Your task to perform on an android device: allow notifications from all sites in the chrome app Image 0: 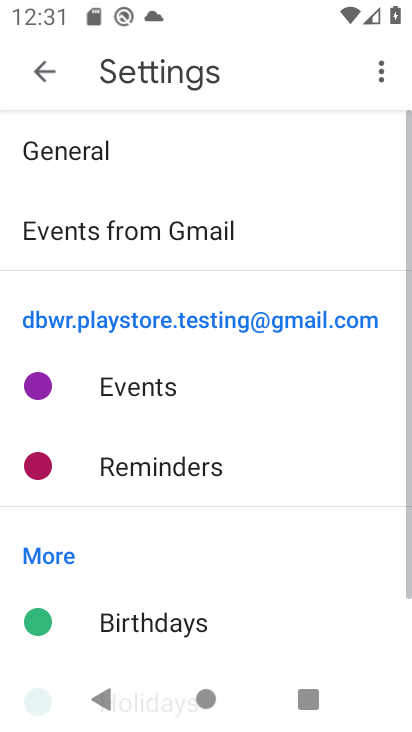
Step 0: drag from (206, 621) to (157, 189)
Your task to perform on an android device: allow notifications from all sites in the chrome app Image 1: 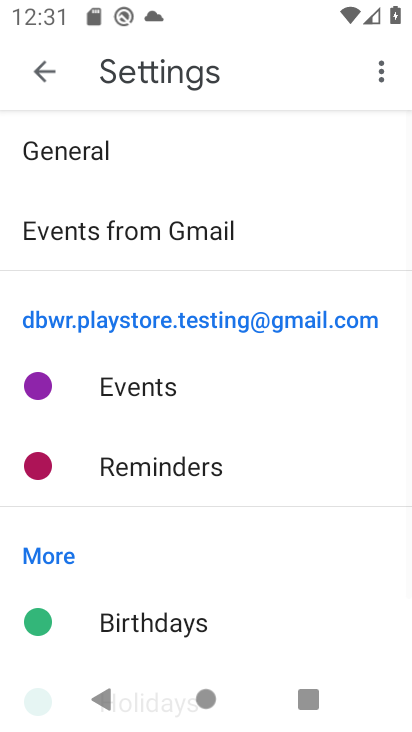
Step 1: click (35, 83)
Your task to perform on an android device: allow notifications from all sites in the chrome app Image 2: 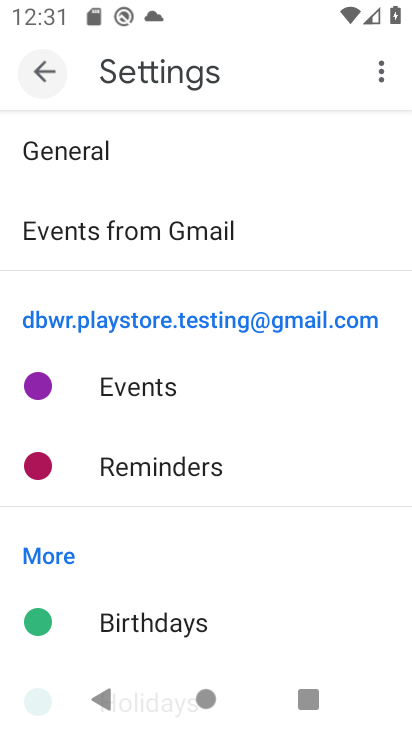
Step 2: click (39, 78)
Your task to perform on an android device: allow notifications from all sites in the chrome app Image 3: 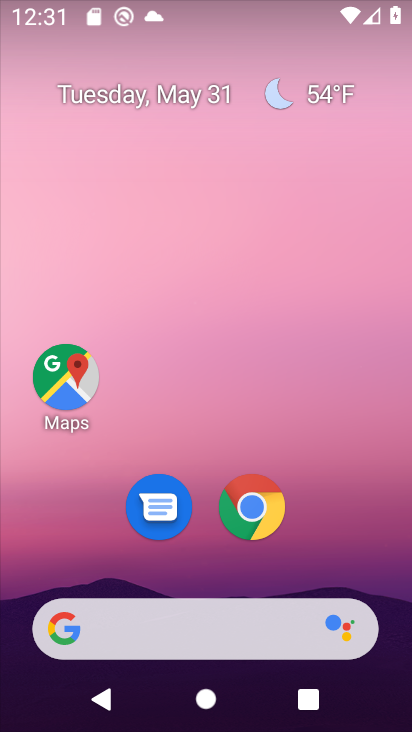
Step 3: drag from (262, 664) to (167, 254)
Your task to perform on an android device: allow notifications from all sites in the chrome app Image 4: 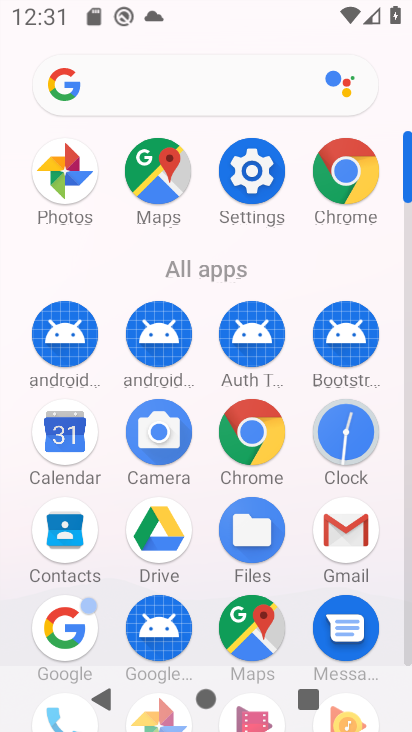
Step 4: click (269, 438)
Your task to perform on an android device: allow notifications from all sites in the chrome app Image 5: 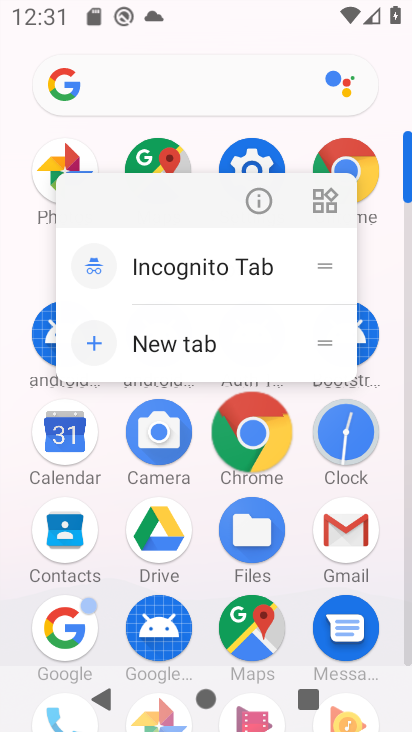
Step 5: click (272, 438)
Your task to perform on an android device: allow notifications from all sites in the chrome app Image 6: 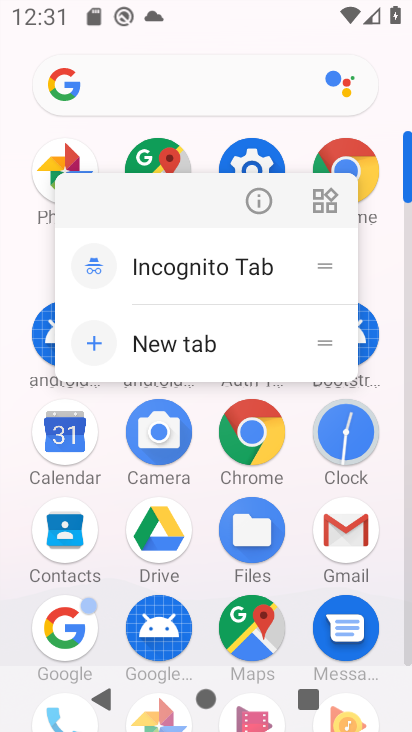
Step 6: click (253, 430)
Your task to perform on an android device: allow notifications from all sites in the chrome app Image 7: 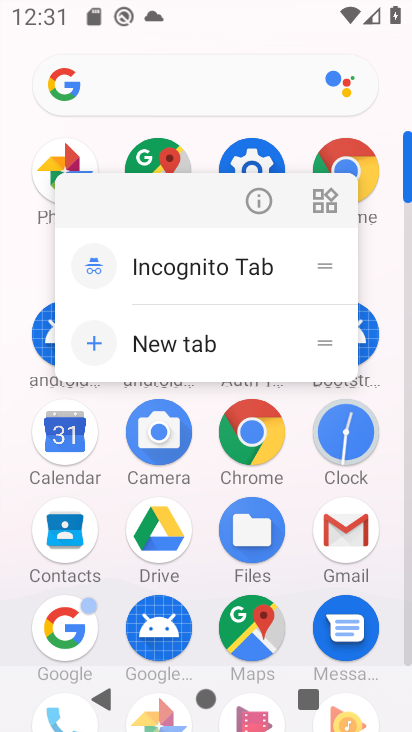
Step 7: click (255, 429)
Your task to perform on an android device: allow notifications from all sites in the chrome app Image 8: 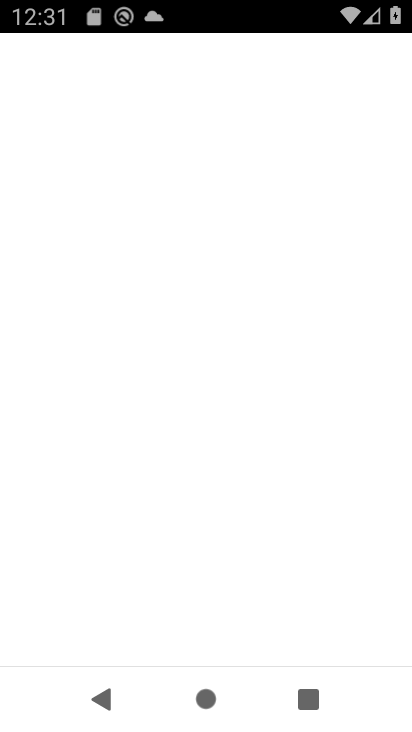
Step 8: click (259, 434)
Your task to perform on an android device: allow notifications from all sites in the chrome app Image 9: 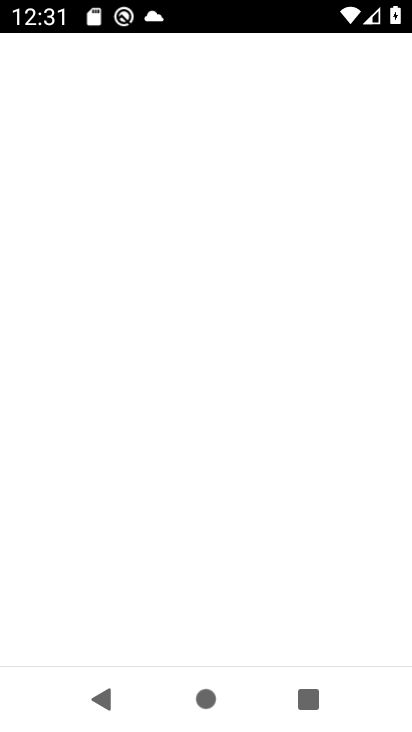
Step 9: click (261, 432)
Your task to perform on an android device: allow notifications from all sites in the chrome app Image 10: 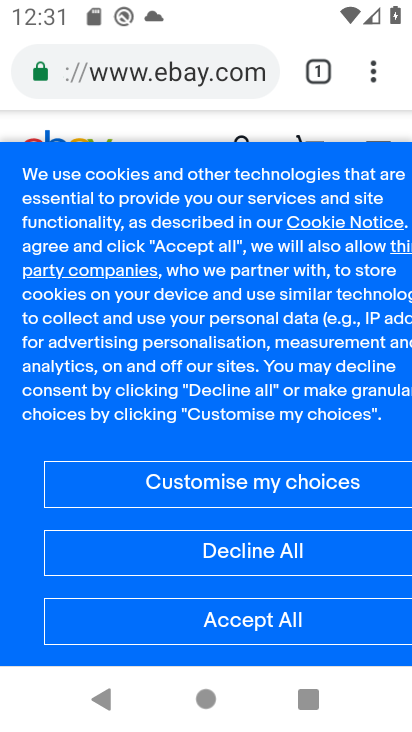
Step 10: drag from (377, 68) to (122, 495)
Your task to perform on an android device: allow notifications from all sites in the chrome app Image 11: 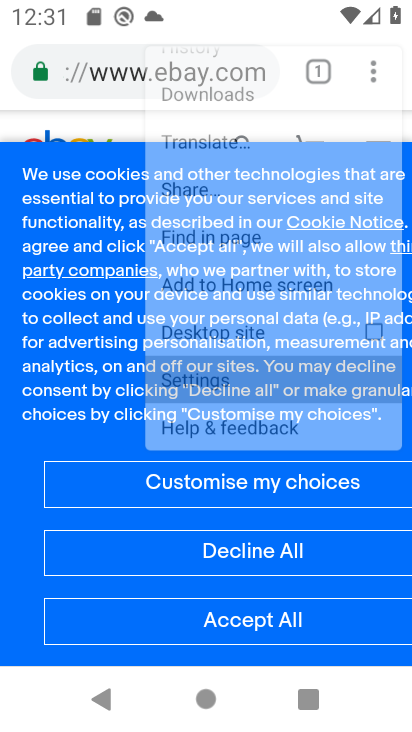
Step 11: click (125, 494)
Your task to perform on an android device: allow notifications from all sites in the chrome app Image 12: 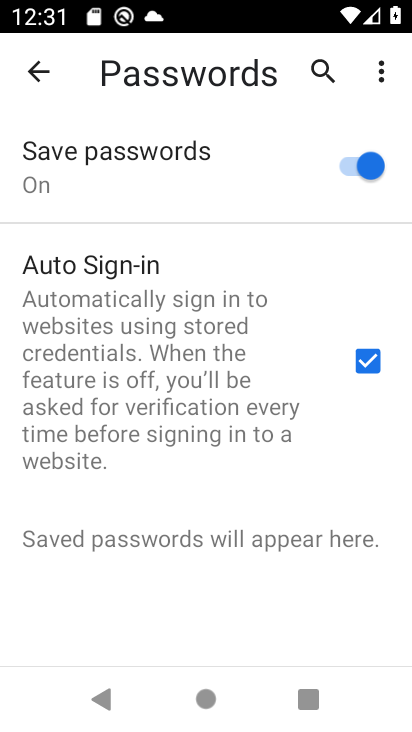
Step 12: click (26, 62)
Your task to perform on an android device: allow notifications from all sites in the chrome app Image 13: 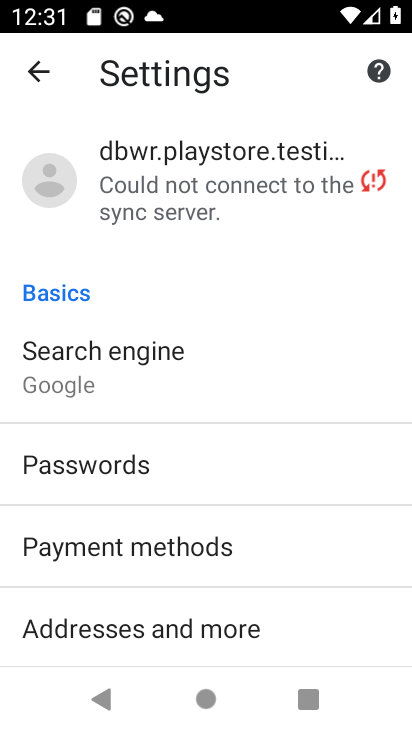
Step 13: drag from (90, 515) to (87, 201)
Your task to perform on an android device: allow notifications from all sites in the chrome app Image 14: 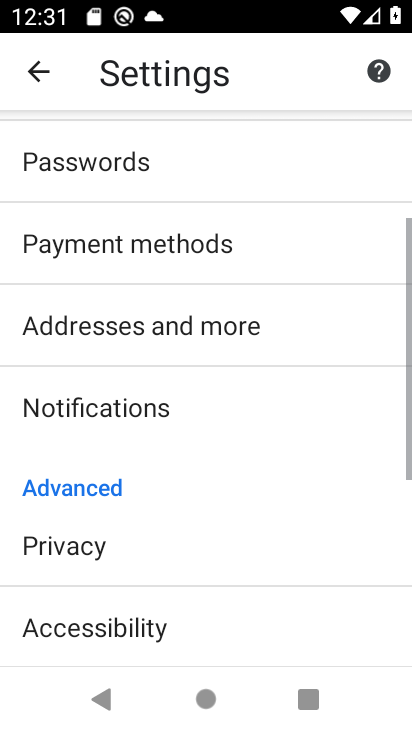
Step 14: drag from (125, 548) to (113, 227)
Your task to perform on an android device: allow notifications from all sites in the chrome app Image 15: 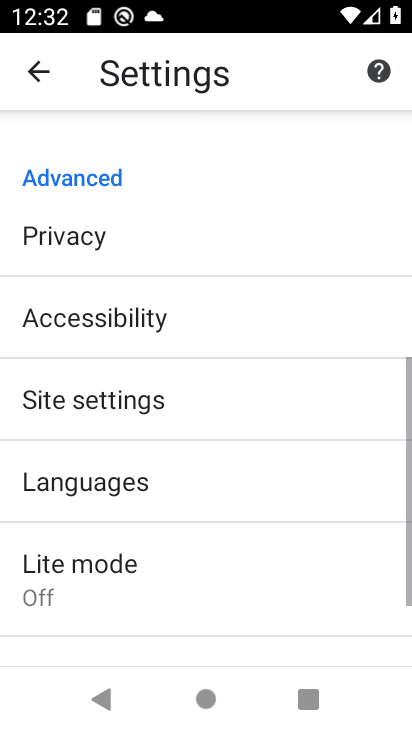
Step 15: click (80, 398)
Your task to perform on an android device: allow notifications from all sites in the chrome app Image 16: 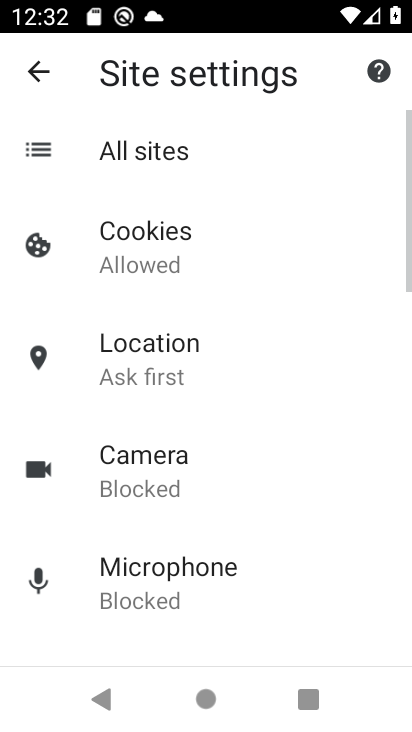
Step 16: click (143, 145)
Your task to perform on an android device: allow notifications from all sites in the chrome app Image 17: 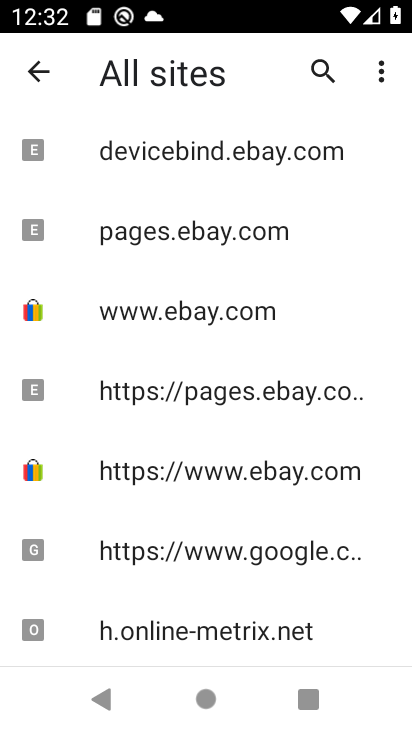
Step 17: task complete